Your task to perform on an android device: turn pop-ups on in chrome Image 0: 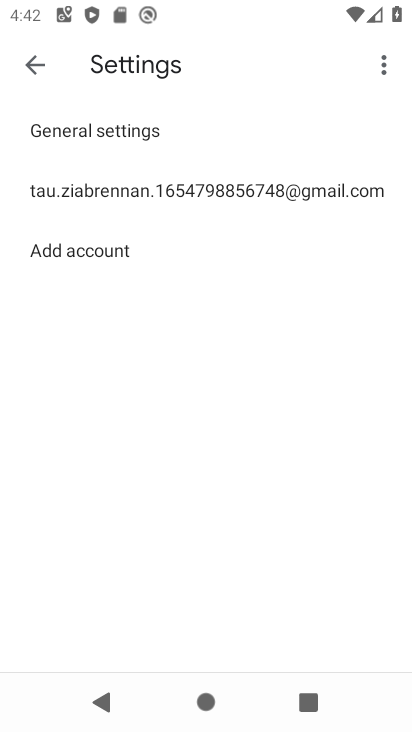
Step 0: press home button
Your task to perform on an android device: turn pop-ups on in chrome Image 1: 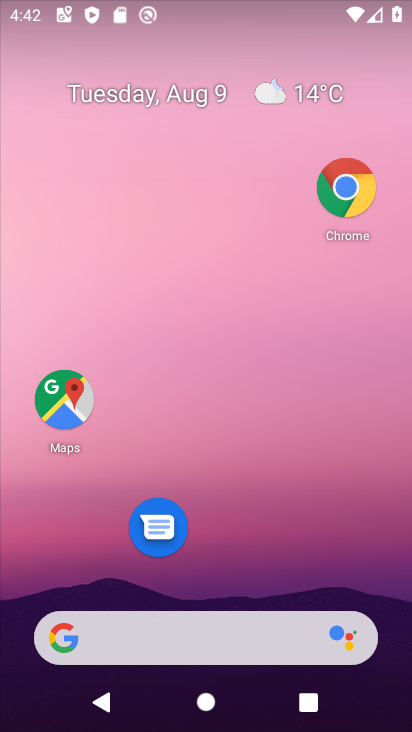
Step 1: click (342, 180)
Your task to perform on an android device: turn pop-ups on in chrome Image 2: 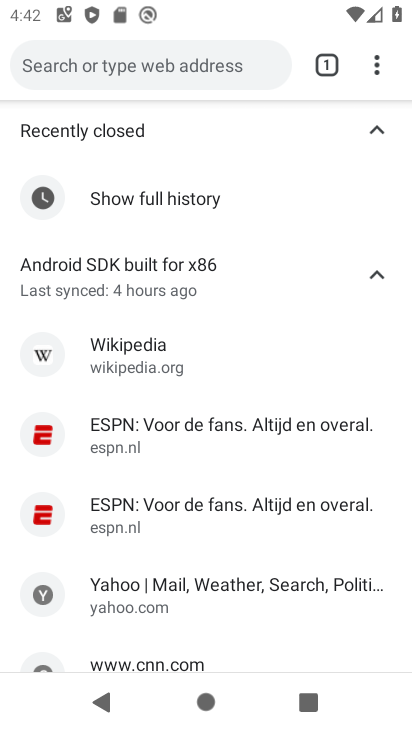
Step 2: click (385, 67)
Your task to perform on an android device: turn pop-ups on in chrome Image 3: 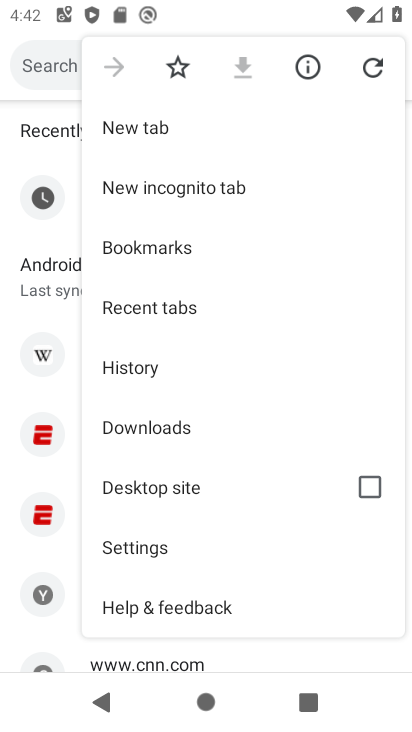
Step 3: click (178, 524)
Your task to perform on an android device: turn pop-ups on in chrome Image 4: 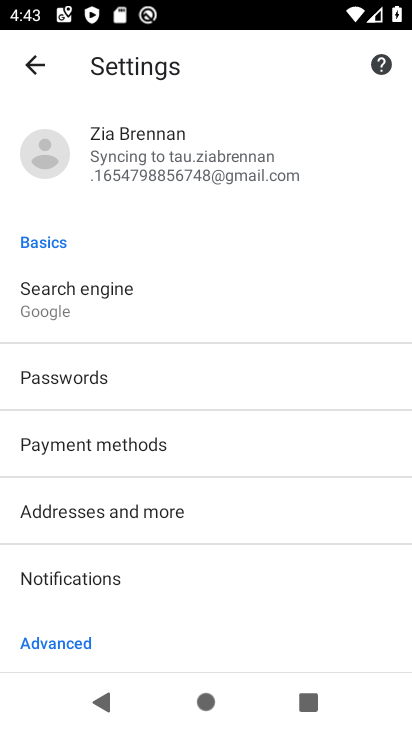
Step 4: drag from (185, 607) to (178, 153)
Your task to perform on an android device: turn pop-ups on in chrome Image 5: 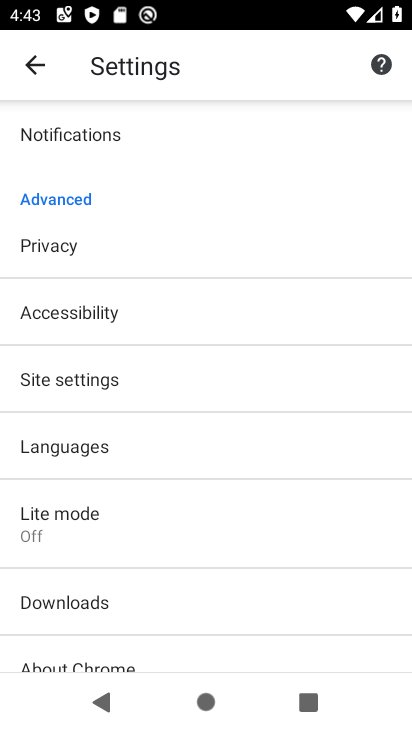
Step 5: click (202, 375)
Your task to perform on an android device: turn pop-ups on in chrome Image 6: 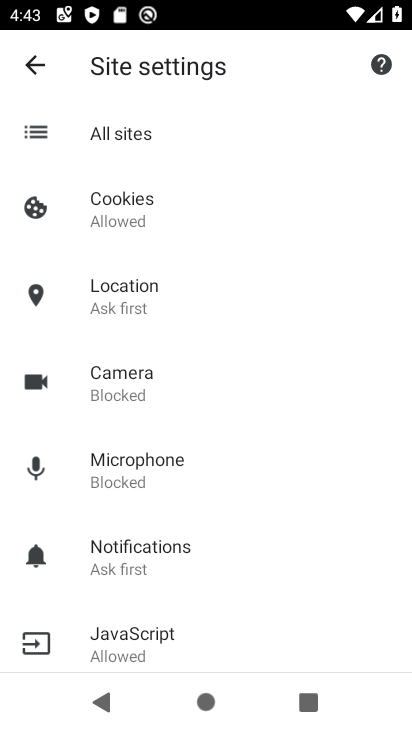
Step 6: drag from (191, 616) to (245, 166)
Your task to perform on an android device: turn pop-ups on in chrome Image 7: 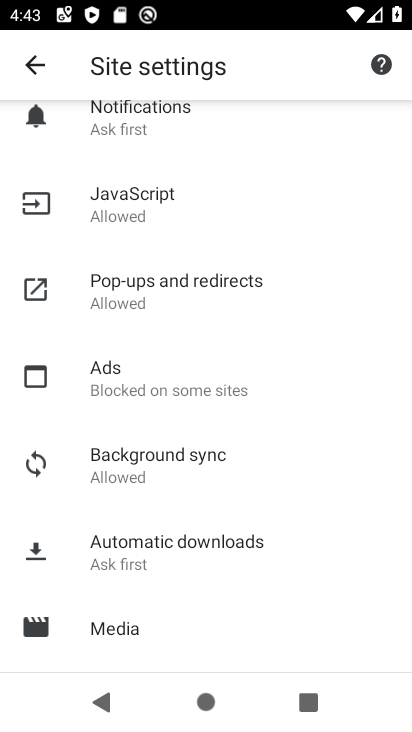
Step 7: click (179, 294)
Your task to perform on an android device: turn pop-ups on in chrome Image 8: 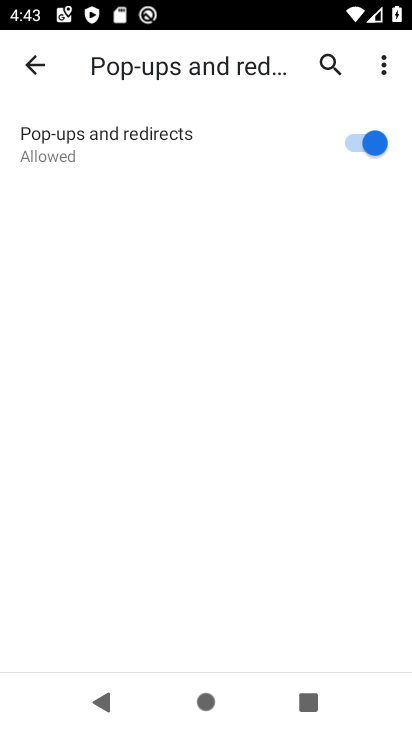
Step 8: task complete